Your task to perform on an android device: Check the news Image 0: 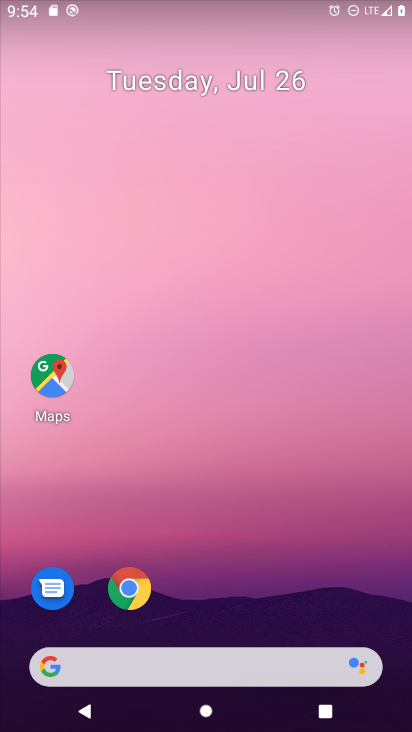
Step 0: drag from (244, 635) to (208, 64)
Your task to perform on an android device: Check the news Image 1: 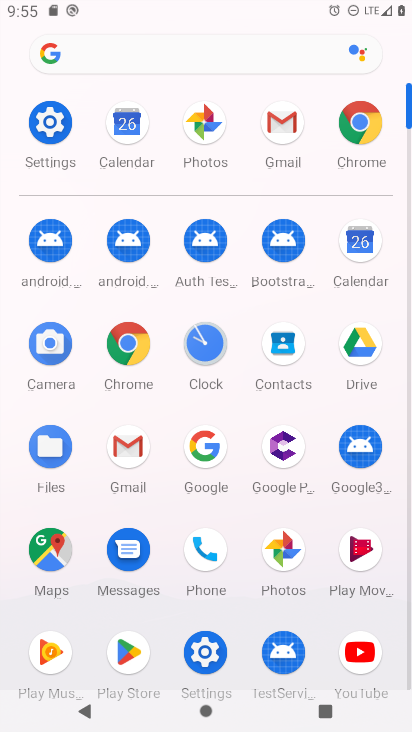
Step 1: click (194, 456)
Your task to perform on an android device: Check the news Image 2: 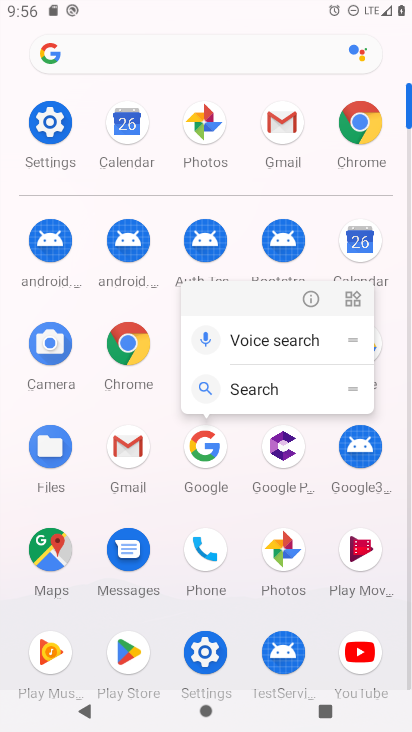
Step 2: click (212, 474)
Your task to perform on an android device: Check the news Image 3: 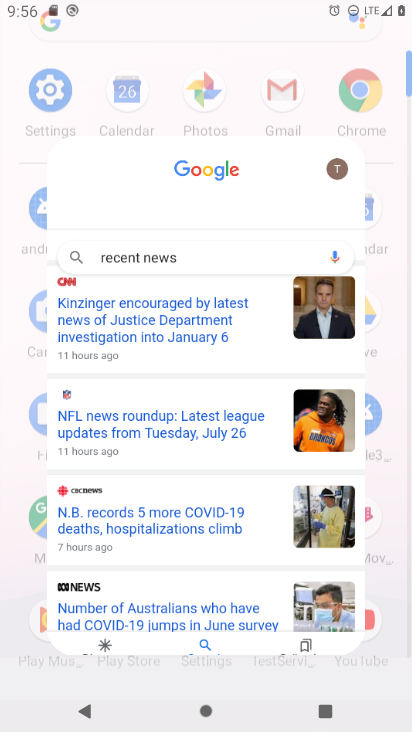
Step 3: click (212, 474)
Your task to perform on an android device: Check the news Image 4: 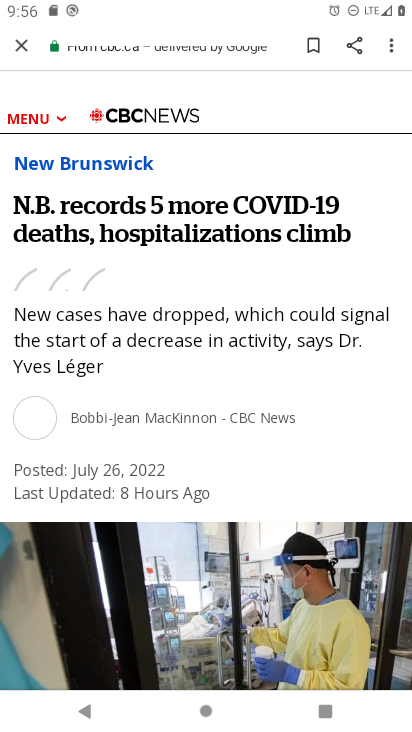
Step 4: task complete